Your task to perform on an android device: Open the phone app and click the voicemail tab. Image 0: 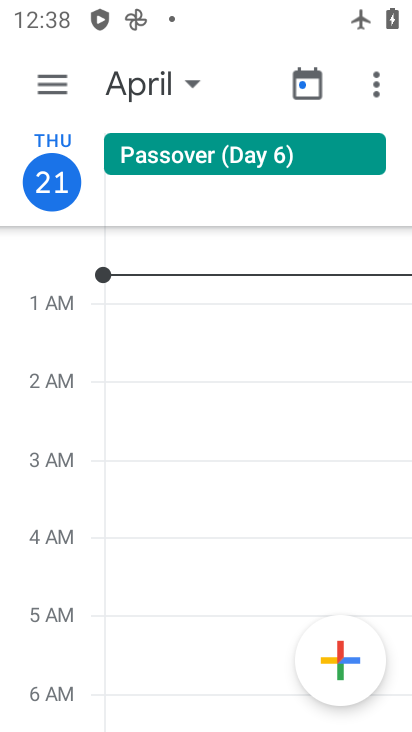
Step 0: press home button
Your task to perform on an android device: Open the phone app and click the voicemail tab. Image 1: 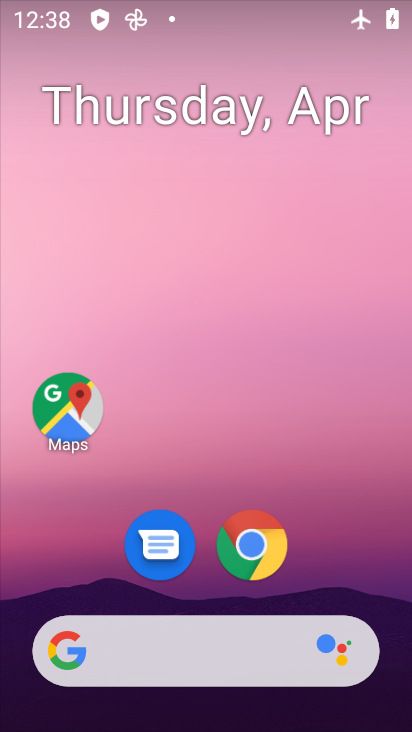
Step 1: drag from (368, 571) to (322, 123)
Your task to perform on an android device: Open the phone app and click the voicemail tab. Image 2: 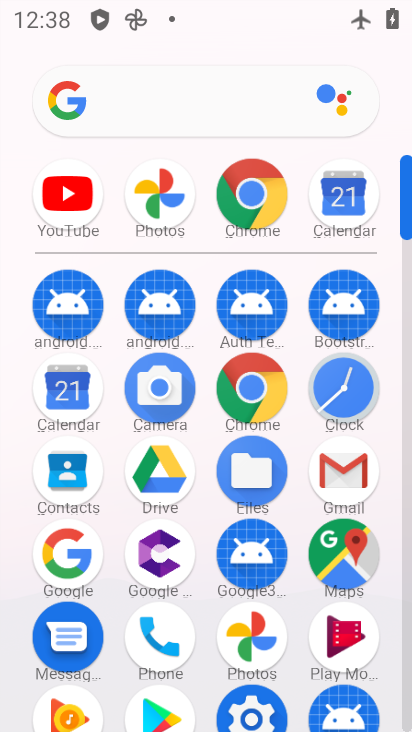
Step 2: click (167, 632)
Your task to perform on an android device: Open the phone app and click the voicemail tab. Image 3: 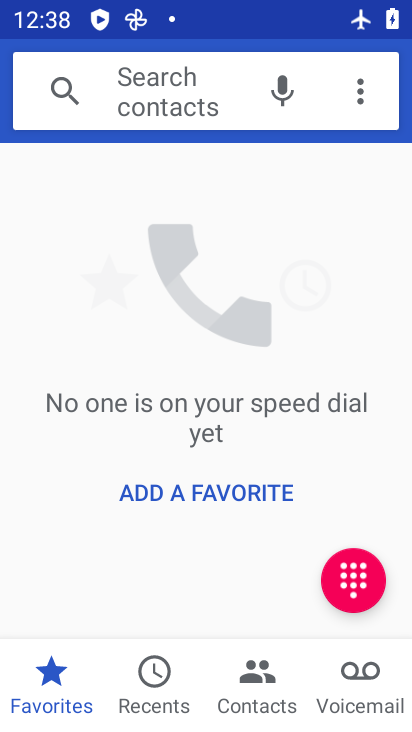
Step 3: click (349, 679)
Your task to perform on an android device: Open the phone app and click the voicemail tab. Image 4: 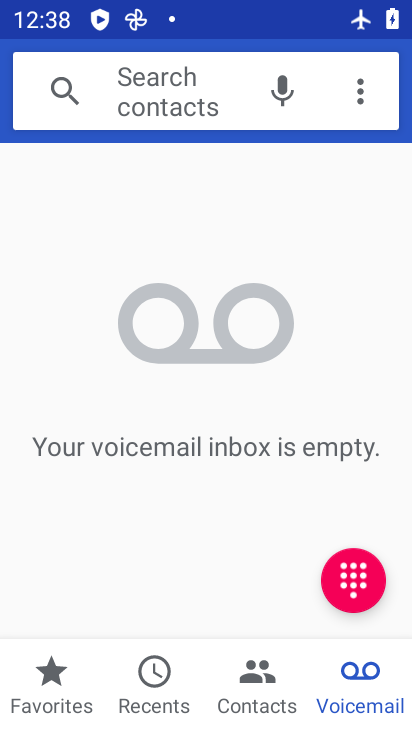
Step 4: task complete